Your task to perform on an android device: check the backup settings in the google photos Image 0: 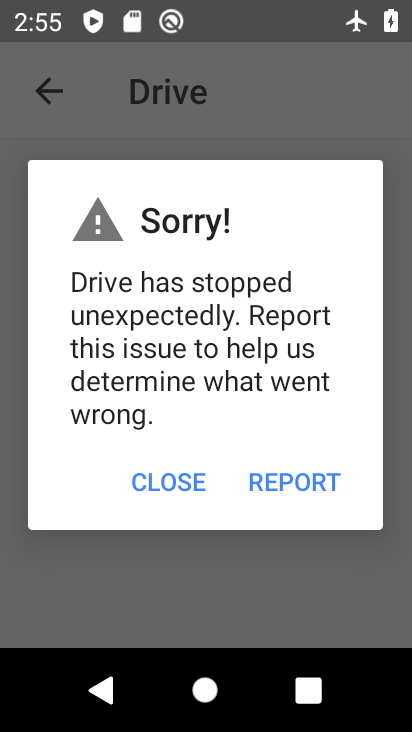
Step 0: press home button
Your task to perform on an android device: check the backup settings in the google photos Image 1: 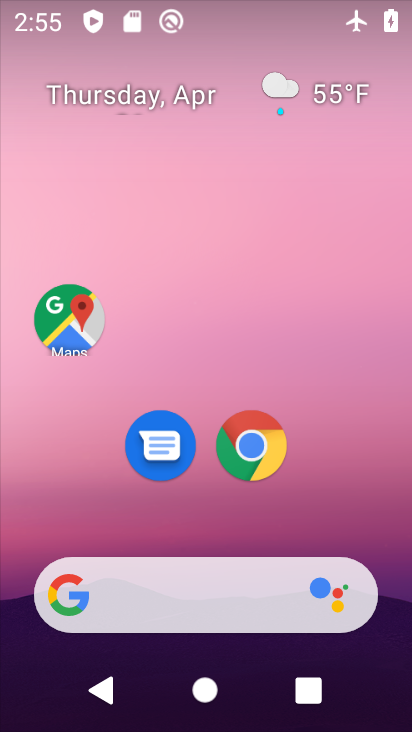
Step 1: drag from (319, 525) to (339, 13)
Your task to perform on an android device: check the backup settings in the google photos Image 2: 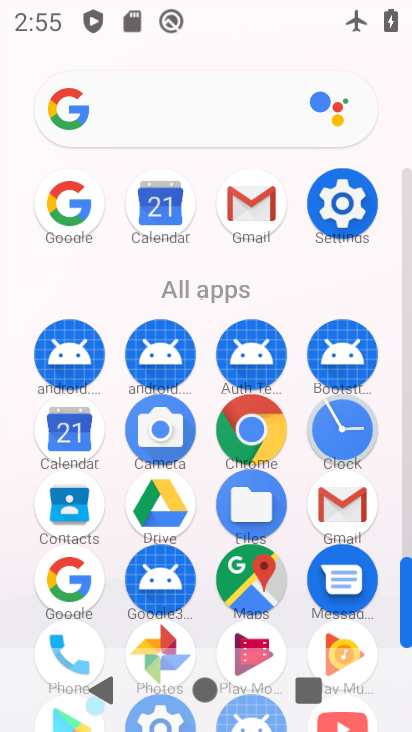
Step 2: drag from (297, 307) to (375, 63)
Your task to perform on an android device: check the backup settings in the google photos Image 3: 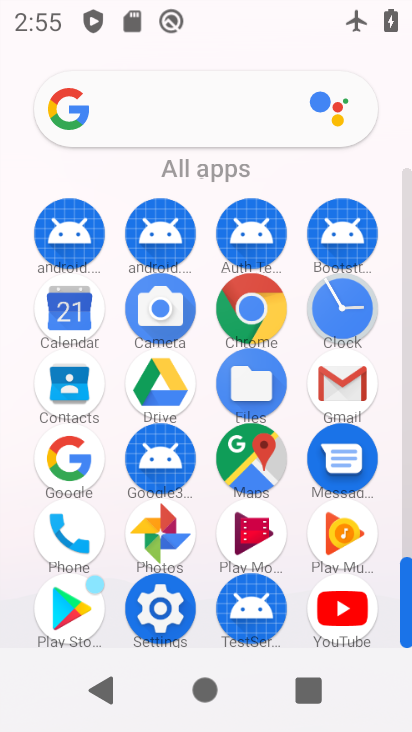
Step 3: click (163, 530)
Your task to perform on an android device: check the backup settings in the google photos Image 4: 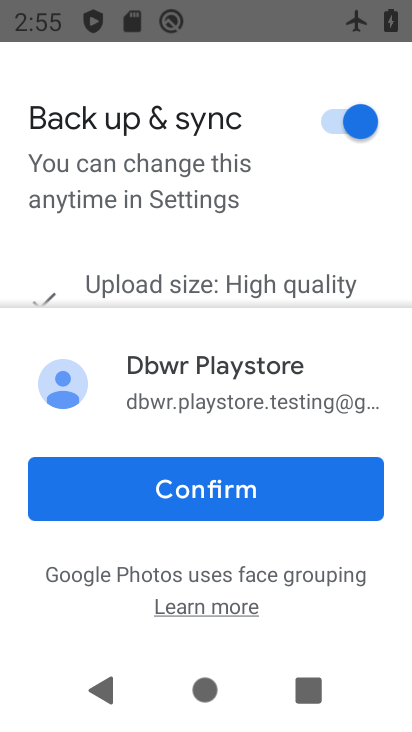
Step 4: click (180, 485)
Your task to perform on an android device: check the backup settings in the google photos Image 5: 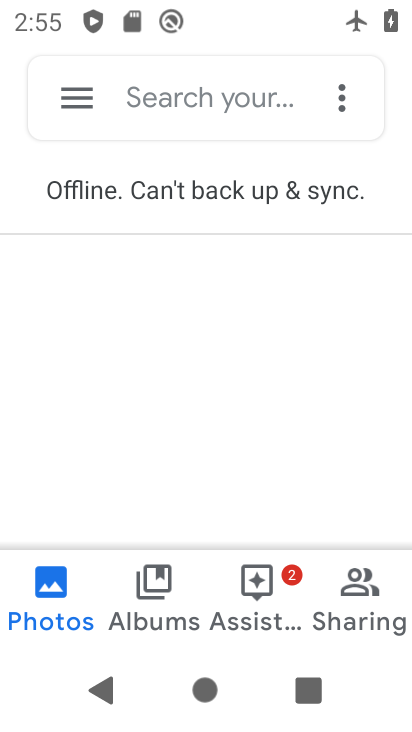
Step 5: click (81, 96)
Your task to perform on an android device: check the backup settings in the google photos Image 6: 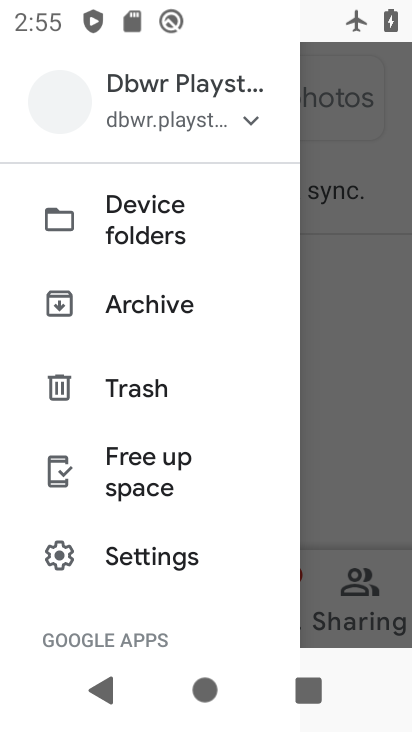
Step 6: click (176, 555)
Your task to perform on an android device: check the backup settings in the google photos Image 7: 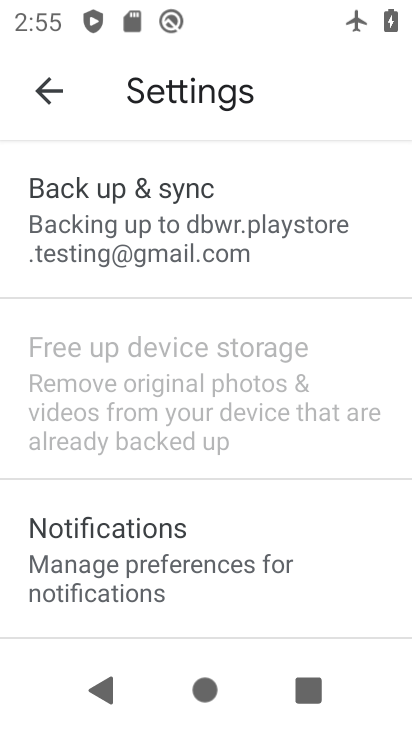
Step 7: click (139, 204)
Your task to perform on an android device: check the backup settings in the google photos Image 8: 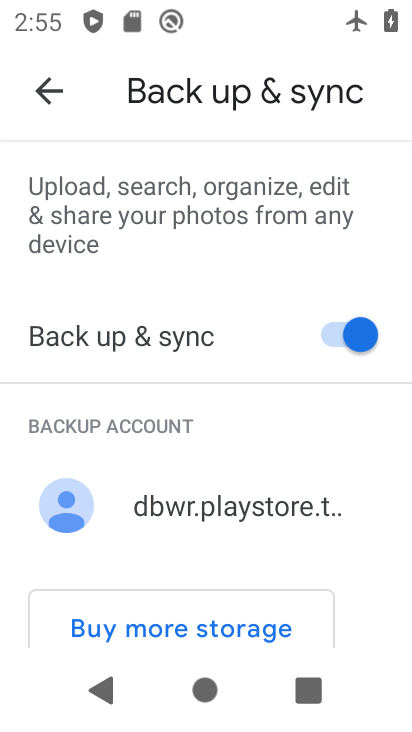
Step 8: task complete